Your task to perform on an android device: turn on javascript in the chrome app Image 0: 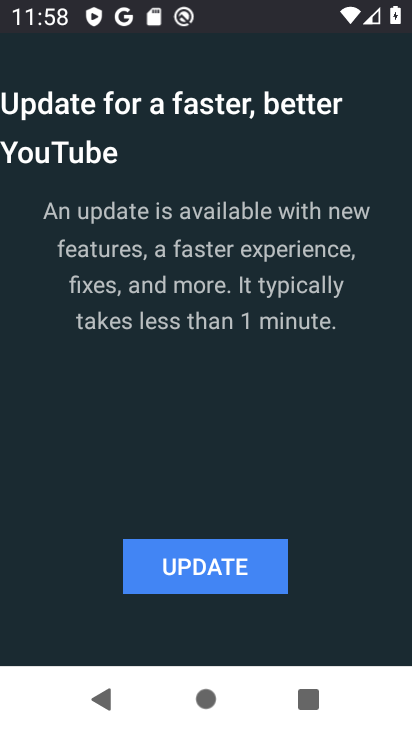
Step 0: press home button
Your task to perform on an android device: turn on javascript in the chrome app Image 1: 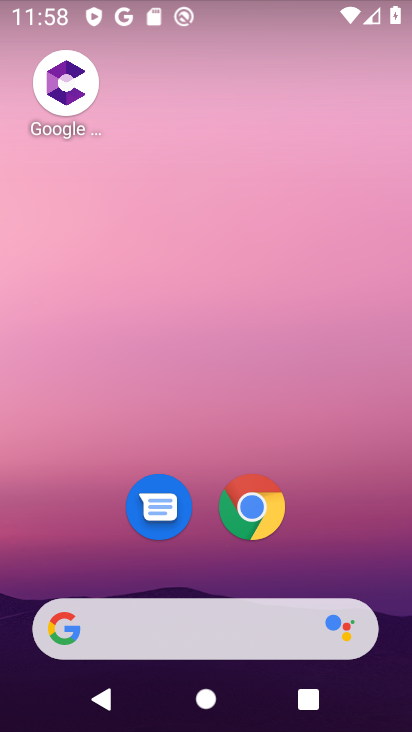
Step 1: drag from (343, 574) to (325, 98)
Your task to perform on an android device: turn on javascript in the chrome app Image 2: 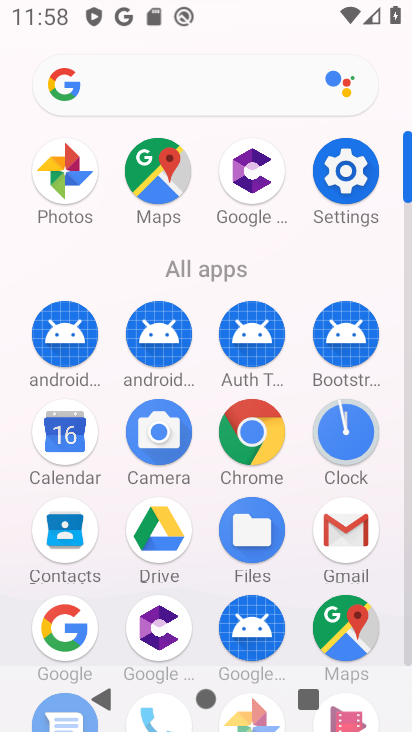
Step 2: click (272, 449)
Your task to perform on an android device: turn on javascript in the chrome app Image 3: 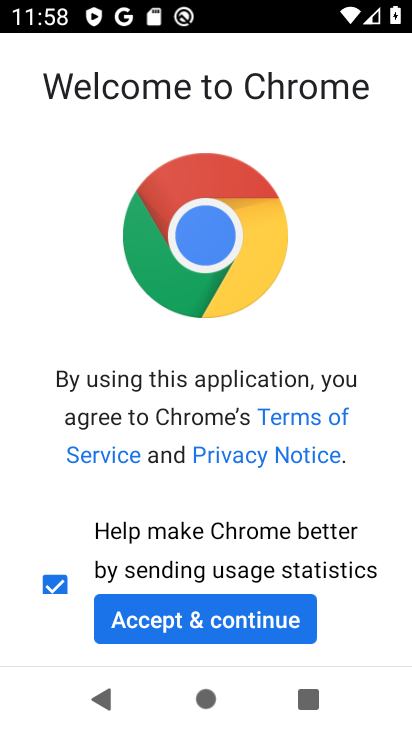
Step 3: click (224, 623)
Your task to perform on an android device: turn on javascript in the chrome app Image 4: 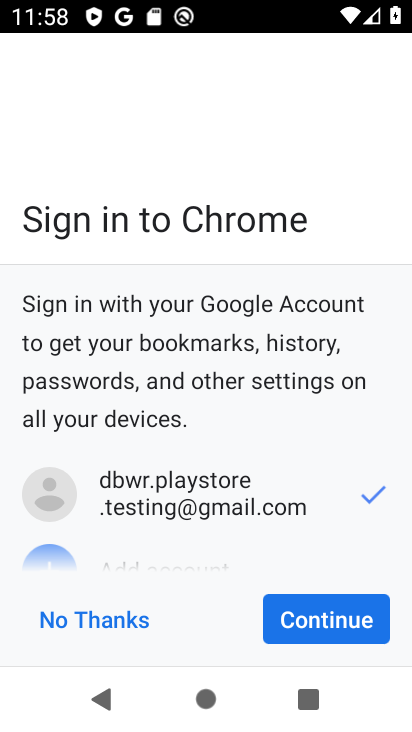
Step 4: click (300, 622)
Your task to perform on an android device: turn on javascript in the chrome app Image 5: 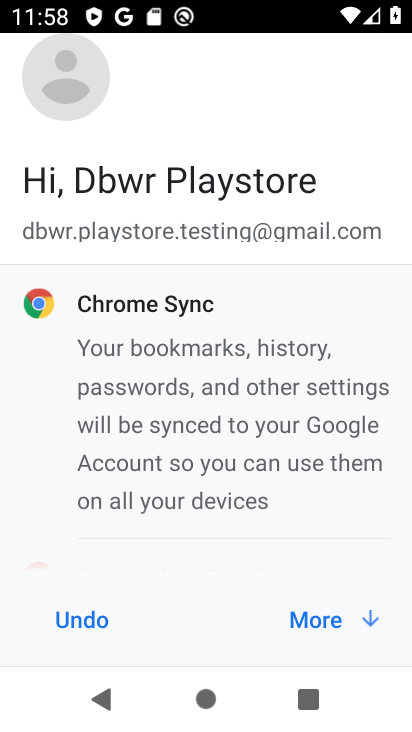
Step 5: click (300, 622)
Your task to perform on an android device: turn on javascript in the chrome app Image 6: 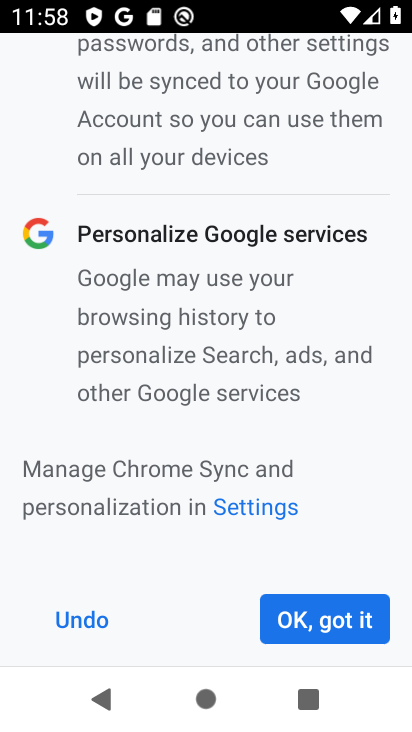
Step 6: click (300, 622)
Your task to perform on an android device: turn on javascript in the chrome app Image 7: 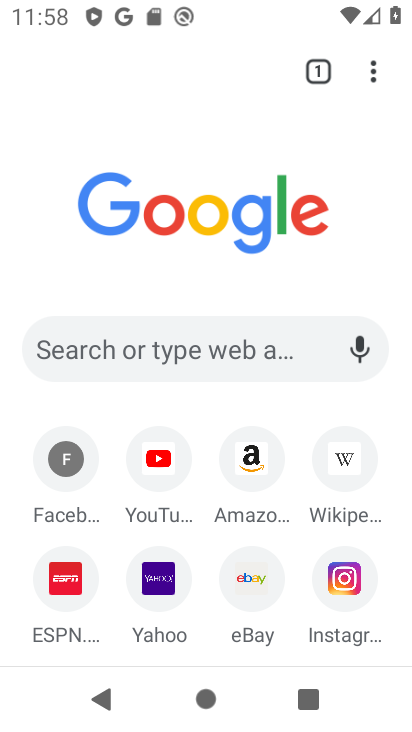
Step 7: click (370, 82)
Your task to perform on an android device: turn on javascript in the chrome app Image 8: 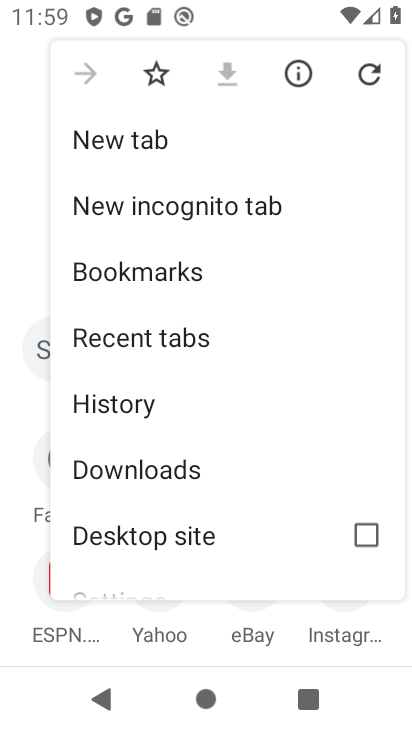
Step 8: drag from (296, 518) to (314, 385)
Your task to perform on an android device: turn on javascript in the chrome app Image 9: 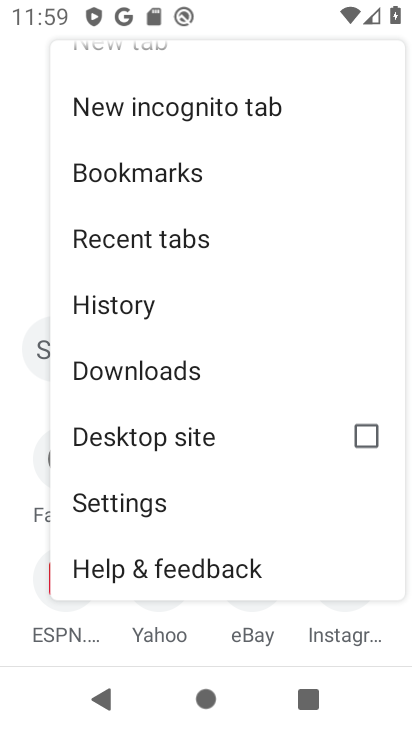
Step 9: drag from (302, 551) to (328, 323)
Your task to perform on an android device: turn on javascript in the chrome app Image 10: 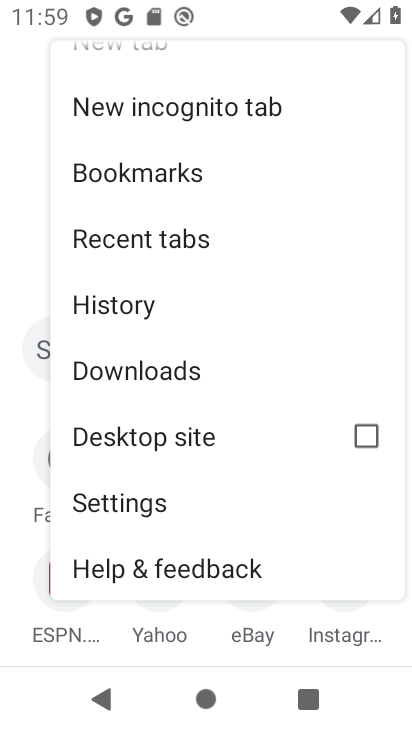
Step 10: click (165, 510)
Your task to perform on an android device: turn on javascript in the chrome app Image 11: 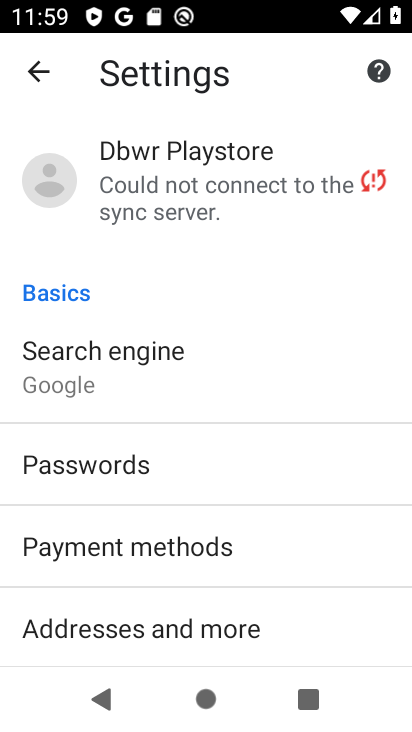
Step 11: drag from (314, 595) to (336, 411)
Your task to perform on an android device: turn on javascript in the chrome app Image 12: 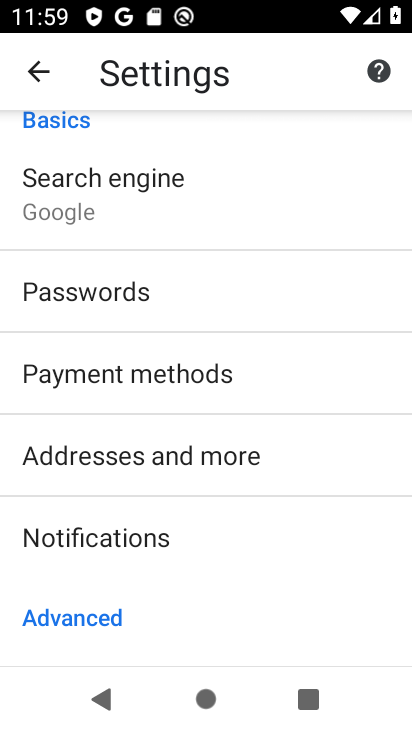
Step 12: drag from (284, 573) to (262, 327)
Your task to perform on an android device: turn on javascript in the chrome app Image 13: 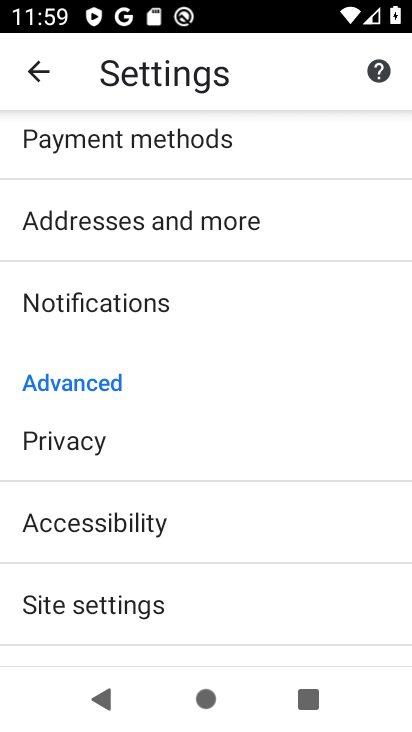
Step 13: drag from (312, 546) to (304, 391)
Your task to perform on an android device: turn on javascript in the chrome app Image 14: 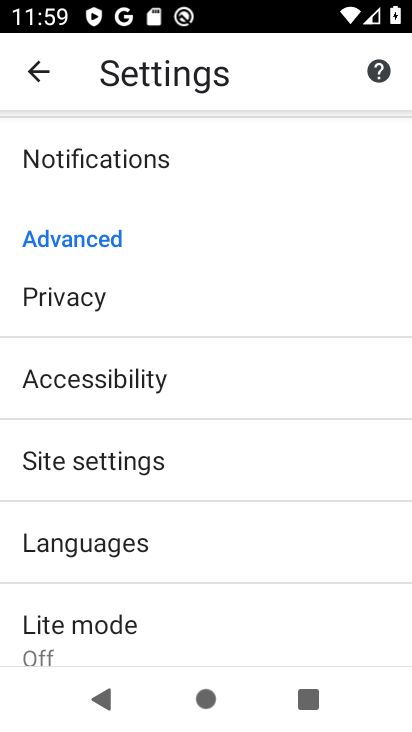
Step 14: click (233, 465)
Your task to perform on an android device: turn on javascript in the chrome app Image 15: 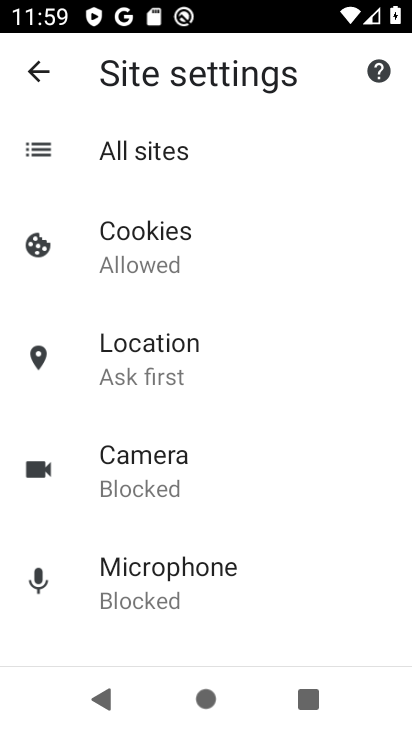
Step 15: drag from (280, 553) to (286, 393)
Your task to perform on an android device: turn on javascript in the chrome app Image 16: 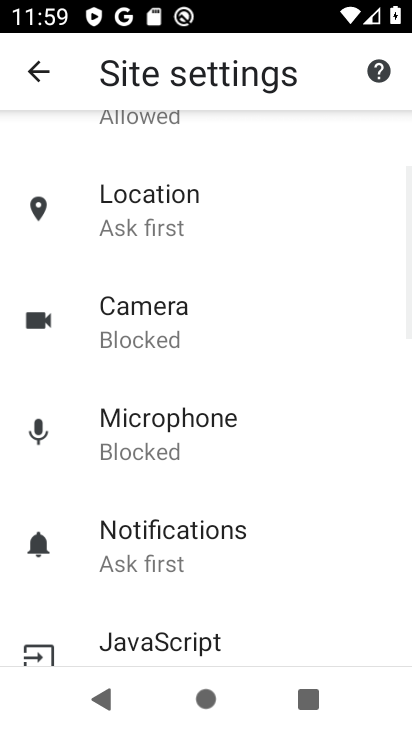
Step 16: drag from (307, 592) to (314, 472)
Your task to perform on an android device: turn on javascript in the chrome app Image 17: 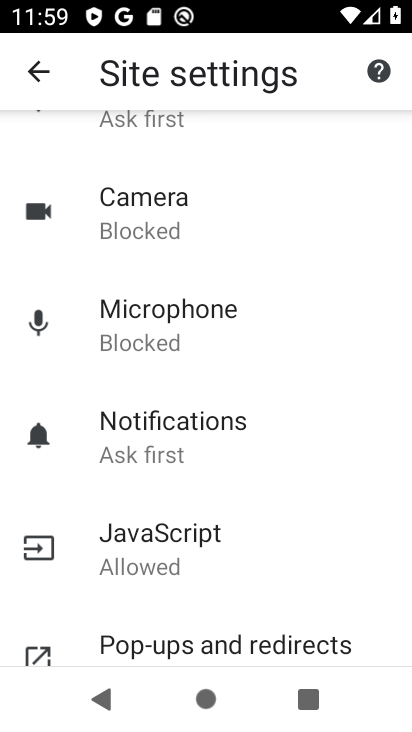
Step 17: drag from (334, 534) to (334, 458)
Your task to perform on an android device: turn on javascript in the chrome app Image 18: 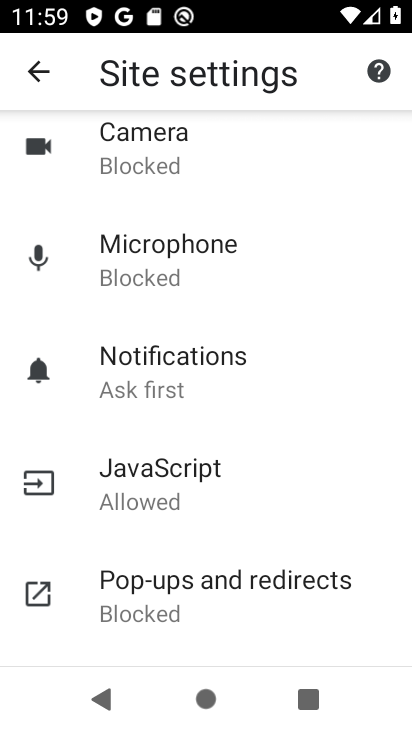
Step 18: drag from (352, 549) to (351, 421)
Your task to perform on an android device: turn on javascript in the chrome app Image 19: 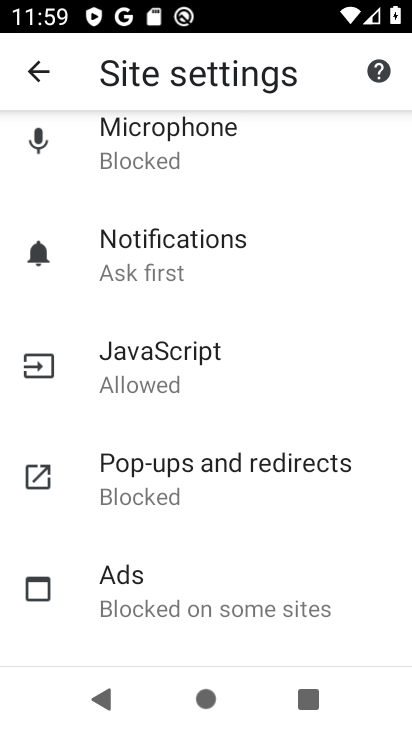
Step 19: drag from (348, 537) to (352, 451)
Your task to perform on an android device: turn on javascript in the chrome app Image 20: 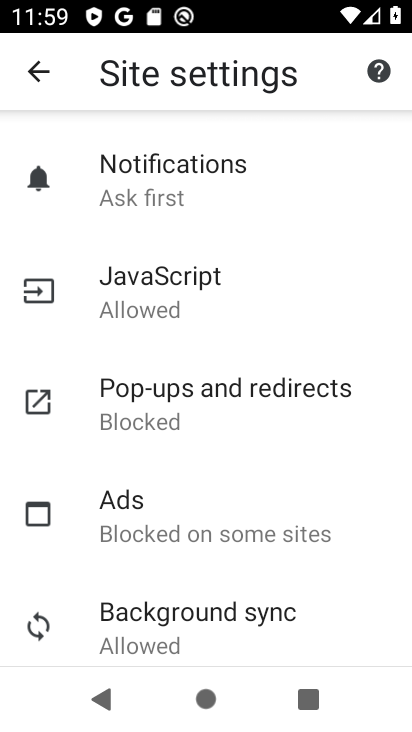
Step 20: drag from (350, 300) to (361, 448)
Your task to perform on an android device: turn on javascript in the chrome app Image 21: 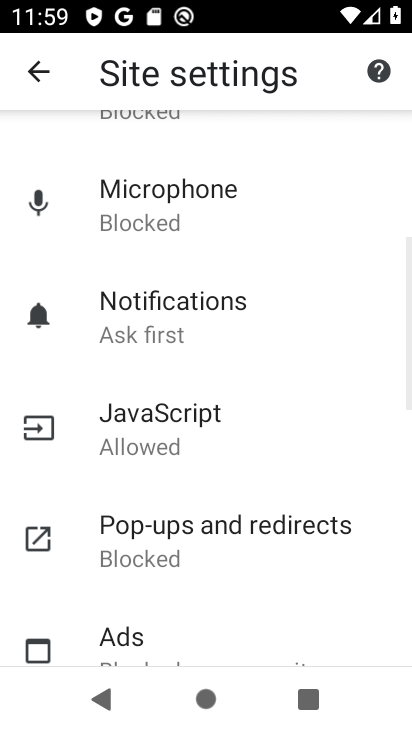
Step 21: click (265, 424)
Your task to perform on an android device: turn on javascript in the chrome app Image 22: 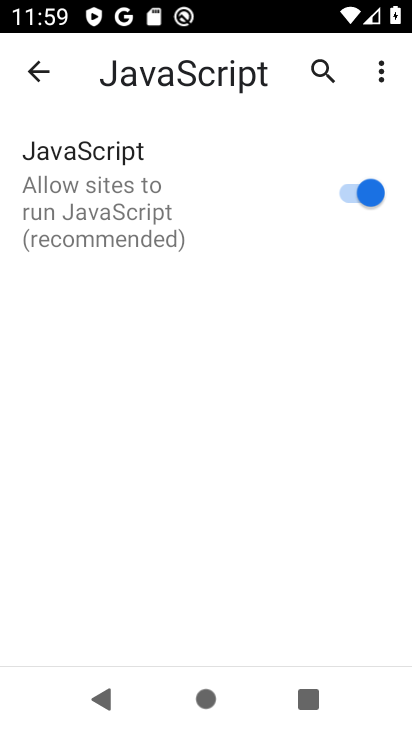
Step 22: task complete